Your task to perform on an android device: What's the weather going to be tomorrow? Image 0: 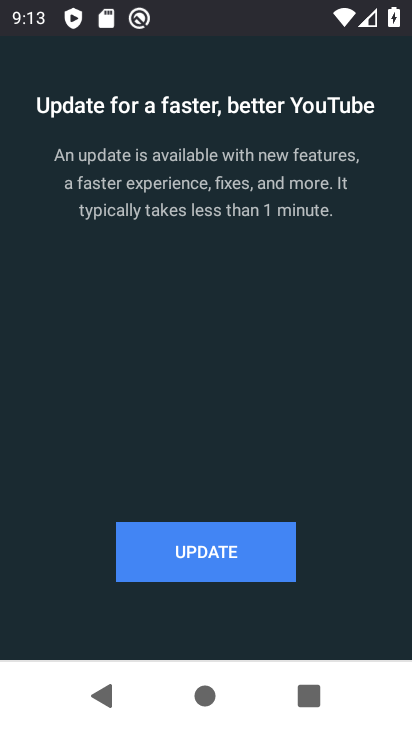
Step 0: press home button
Your task to perform on an android device: What's the weather going to be tomorrow? Image 1: 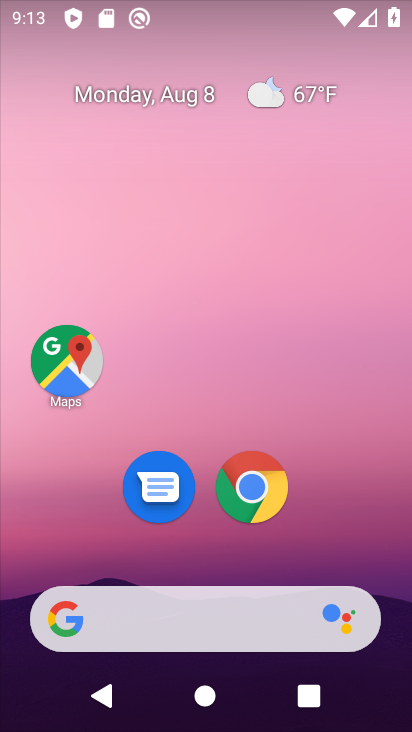
Step 1: drag from (208, 564) to (209, 7)
Your task to perform on an android device: What's the weather going to be tomorrow? Image 2: 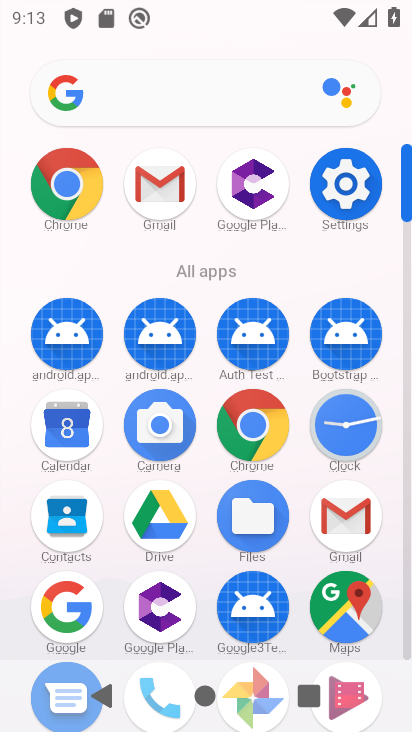
Step 2: click (60, 612)
Your task to perform on an android device: What's the weather going to be tomorrow? Image 3: 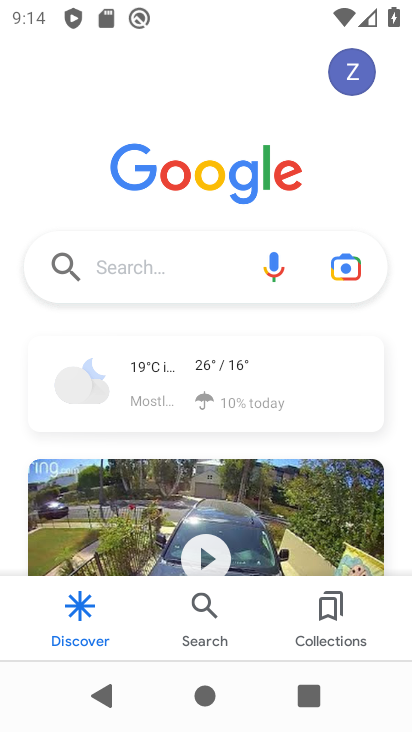
Step 3: click (155, 382)
Your task to perform on an android device: What's the weather going to be tomorrow? Image 4: 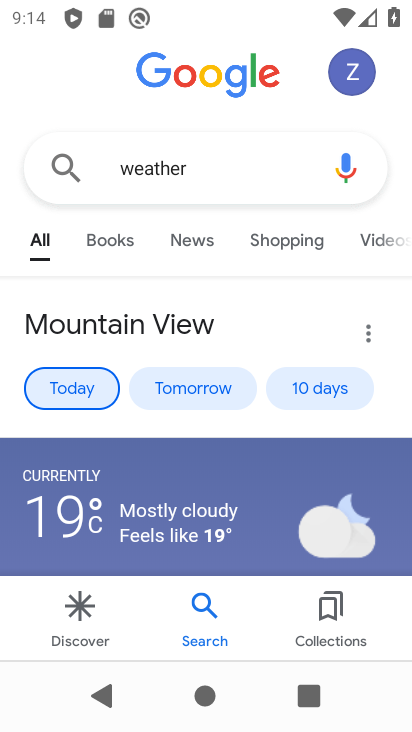
Step 4: click (197, 392)
Your task to perform on an android device: What's the weather going to be tomorrow? Image 5: 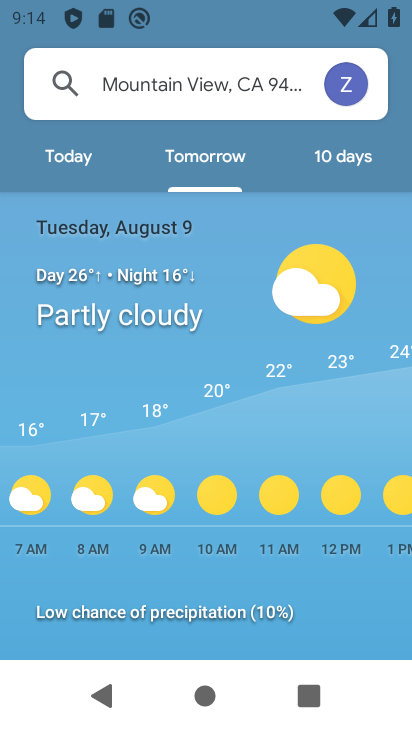
Step 5: task complete